Your task to perform on an android device: Add "logitech g pro" to the cart on target.com Image 0: 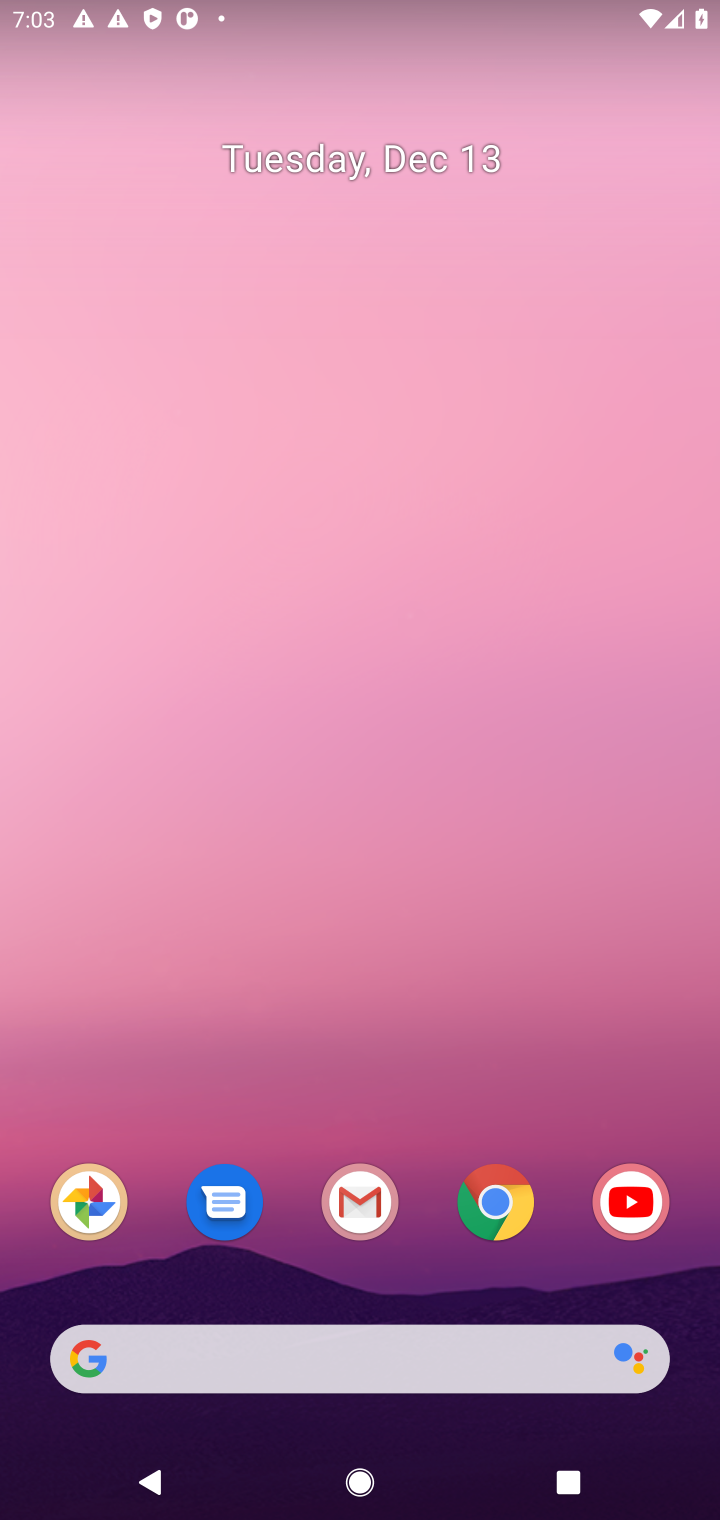
Step 0: click (506, 1219)
Your task to perform on an android device: Add "logitech g pro" to the cart on target.com Image 1: 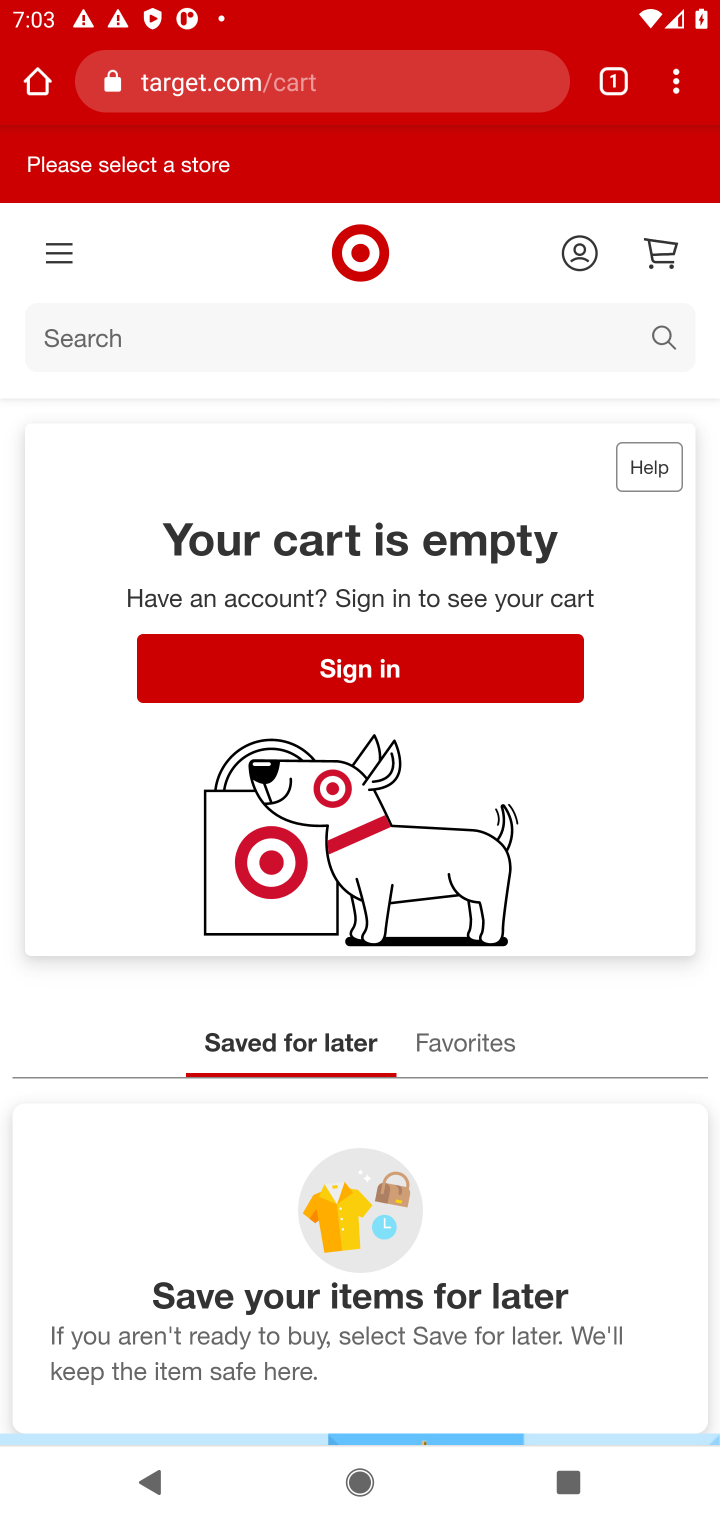
Step 1: click (108, 344)
Your task to perform on an android device: Add "logitech g pro" to the cart on target.com Image 2: 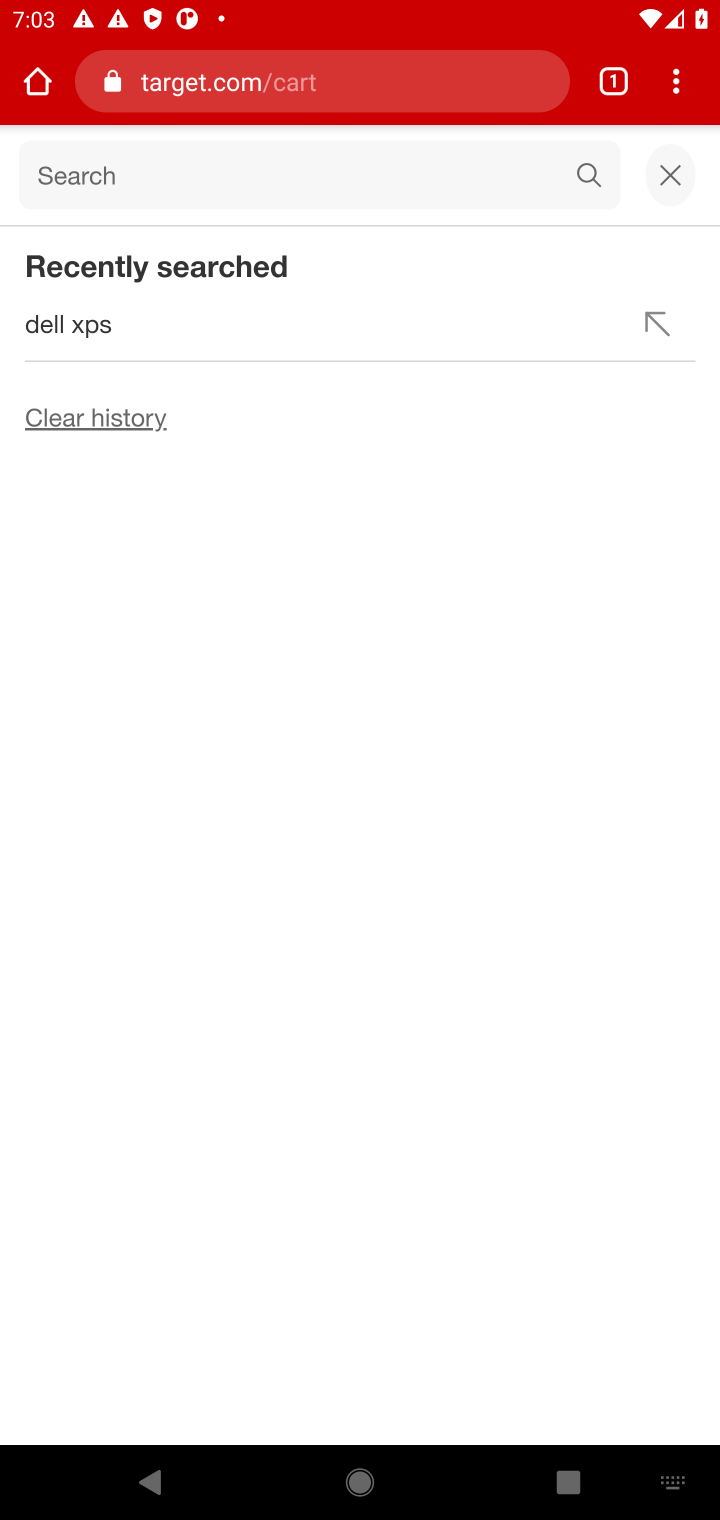
Step 2: type "logitech g pro"
Your task to perform on an android device: Add "logitech g pro" to the cart on target.com Image 3: 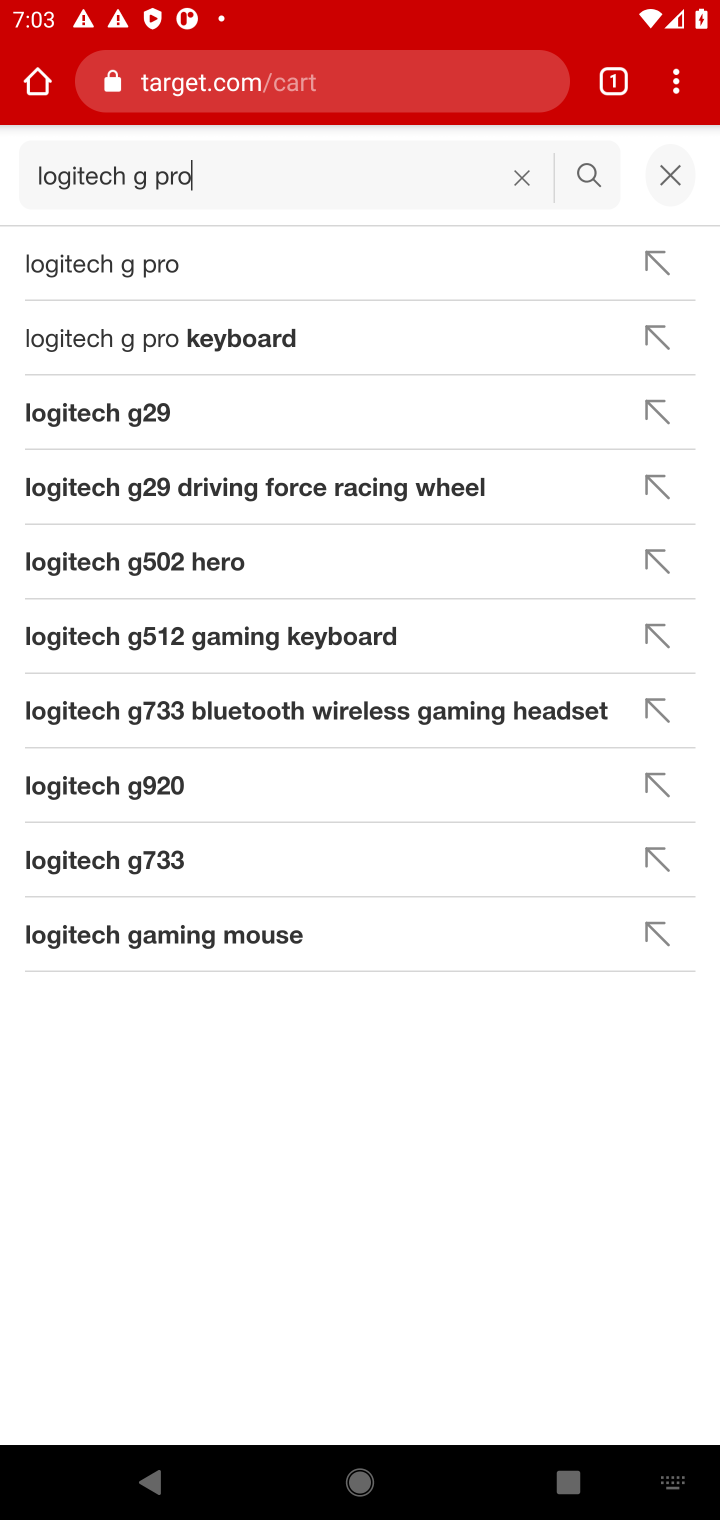
Step 3: click (143, 268)
Your task to perform on an android device: Add "logitech g pro" to the cart on target.com Image 4: 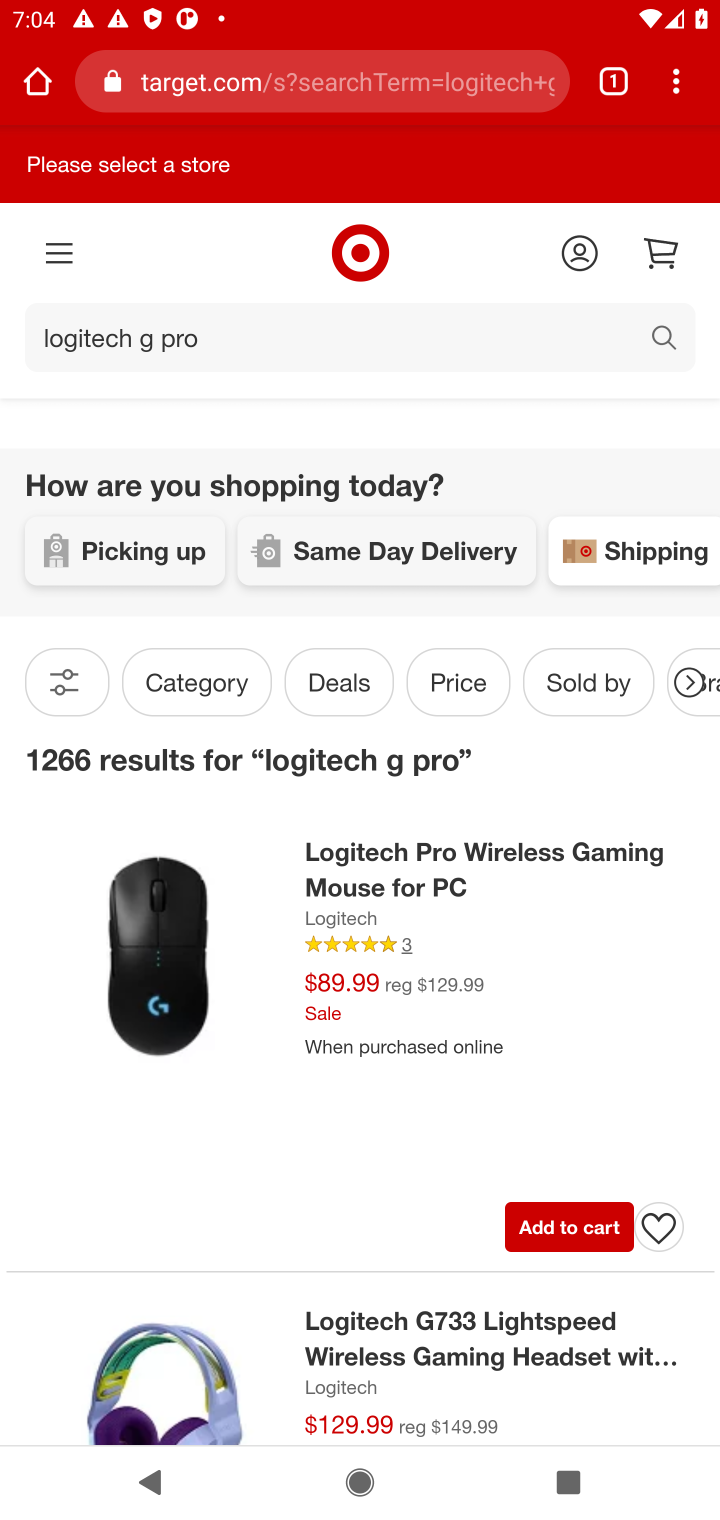
Step 4: task complete